Your task to perform on an android device: see tabs open on other devices in the chrome app Image 0: 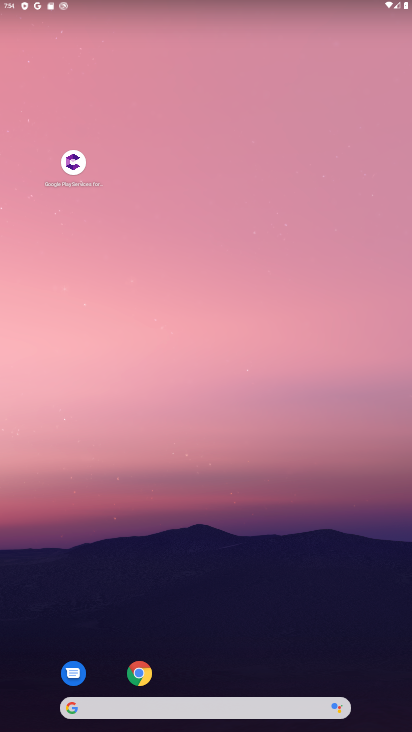
Step 0: click (151, 670)
Your task to perform on an android device: see tabs open on other devices in the chrome app Image 1: 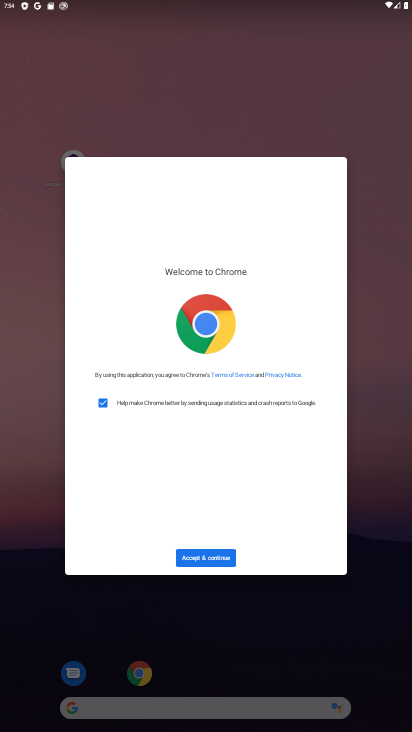
Step 1: click (198, 554)
Your task to perform on an android device: see tabs open on other devices in the chrome app Image 2: 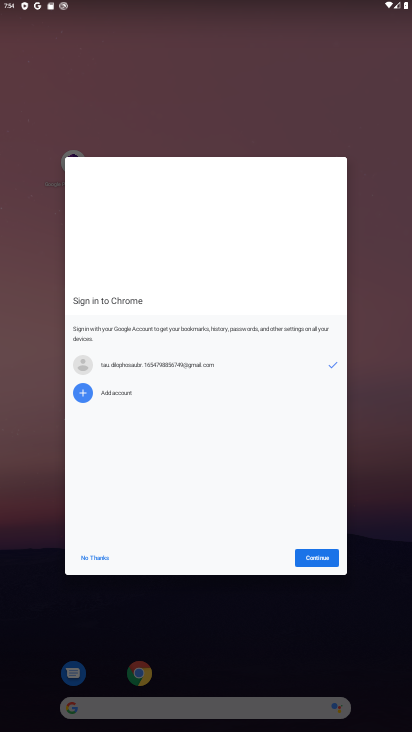
Step 2: click (311, 554)
Your task to perform on an android device: see tabs open on other devices in the chrome app Image 3: 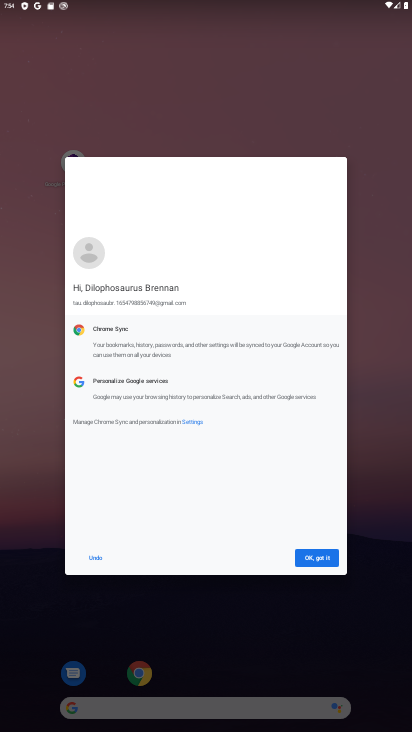
Step 3: click (311, 554)
Your task to perform on an android device: see tabs open on other devices in the chrome app Image 4: 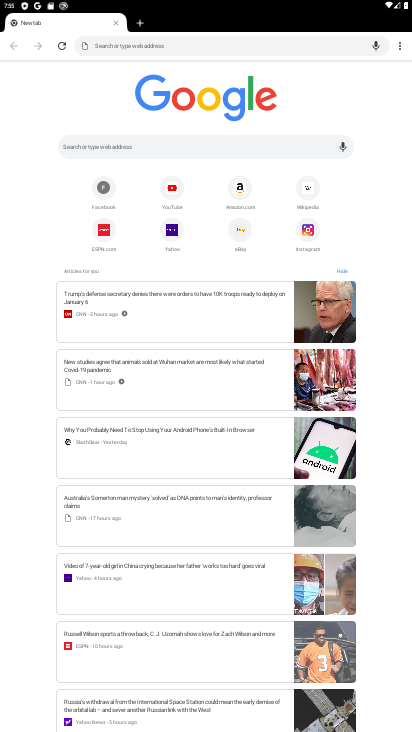
Step 4: task complete